Your task to perform on an android device: Open Reddit.com Image 0: 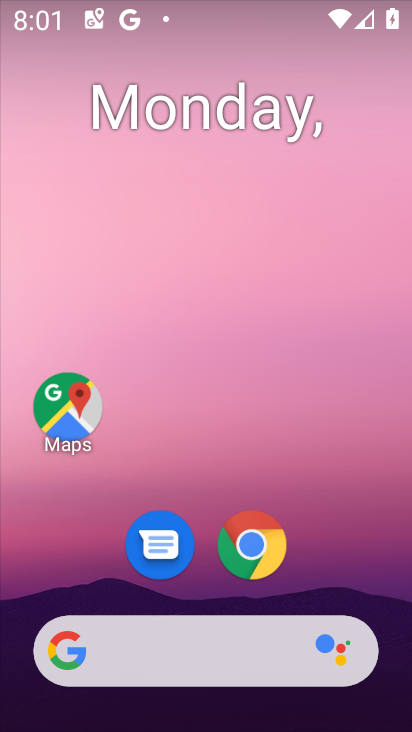
Step 0: press home button
Your task to perform on an android device: Open Reddit.com Image 1: 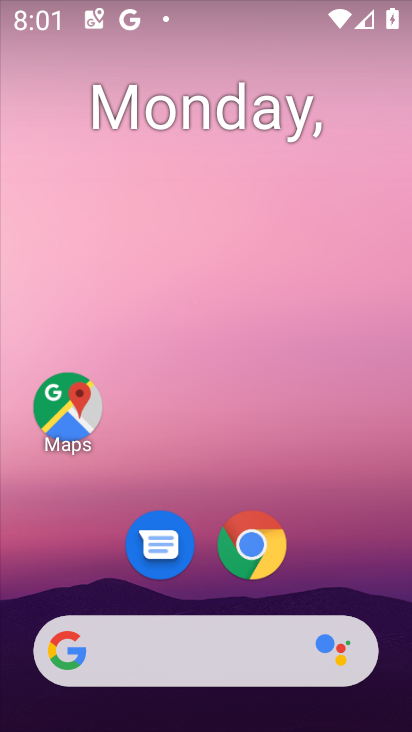
Step 1: click (259, 536)
Your task to perform on an android device: Open Reddit.com Image 2: 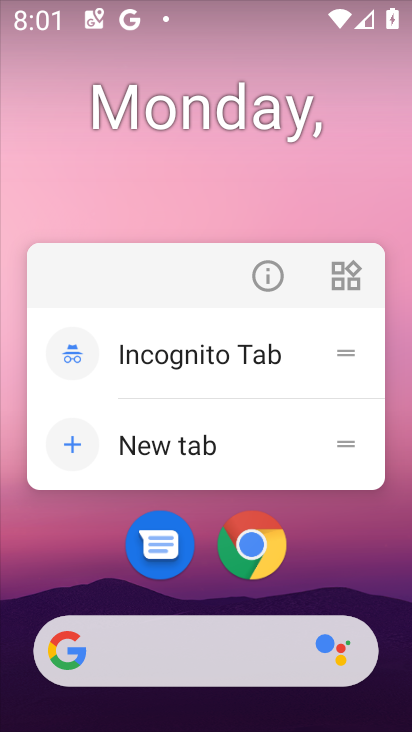
Step 2: click (260, 544)
Your task to perform on an android device: Open Reddit.com Image 3: 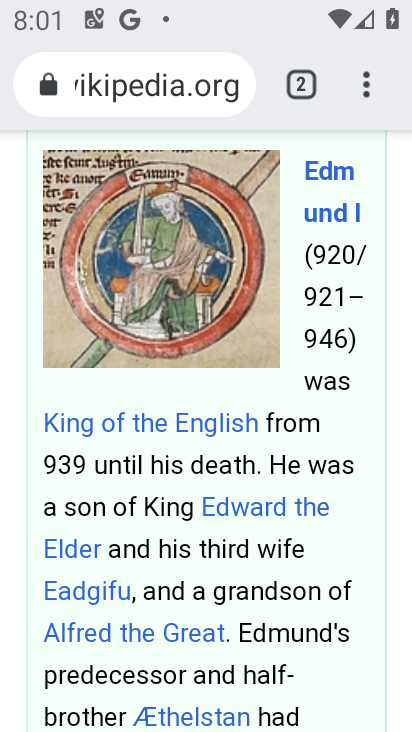
Step 3: drag from (372, 86) to (287, 168)
Your task to perform on an android device: Open Reddit.com Image 4: 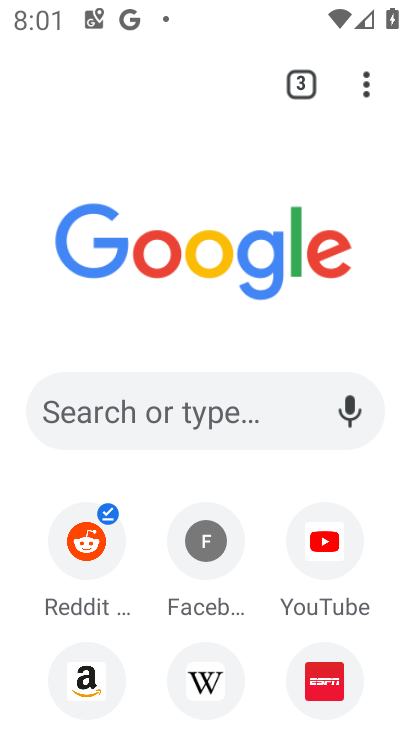
Step 4: click (73, 541)
Your task to perform on an android device: Open Reddit.com Image 5: 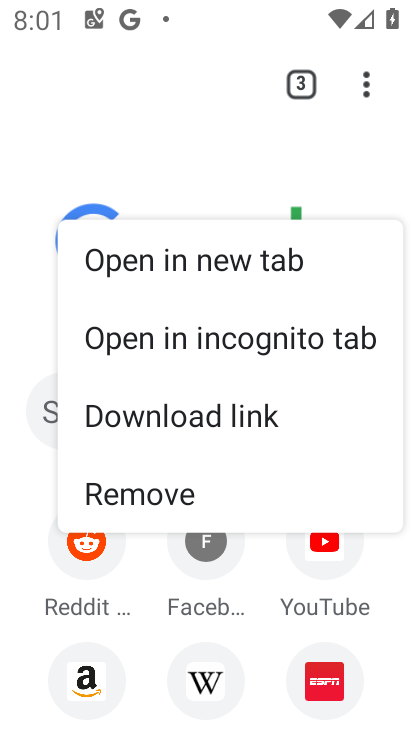
Step 5: click (84, 533)
Your task to perform on an android device: Open Reddit.com Image 6: 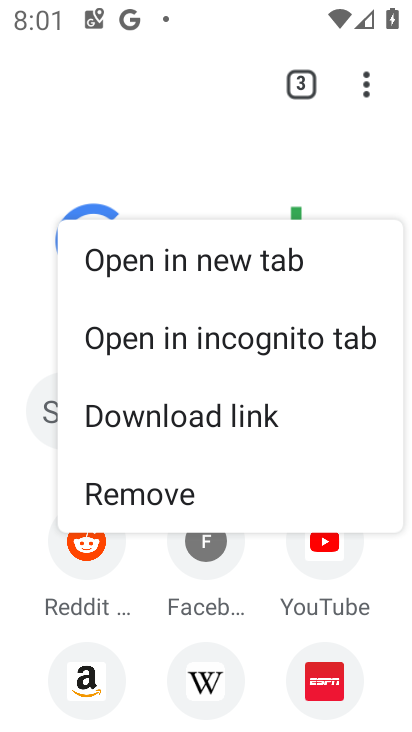
Step 6: click (94, 542)
Your task to perform on an android device: Open Reddit.com Image 7: 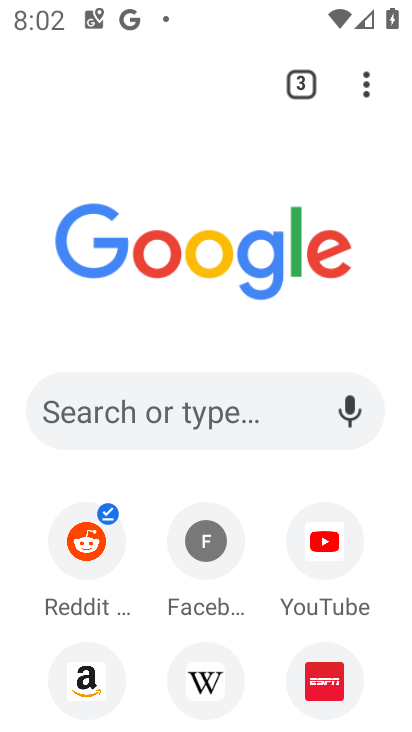
Step 7: click (83, 547)
Your task to perform on an android device: Open Reddit.com Image 8: 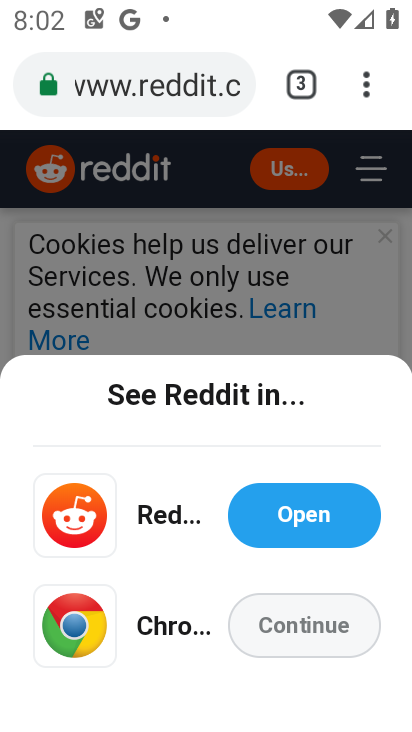
Step 8: task complete